Your task to perform on an android device: turn off wifi Image 0: 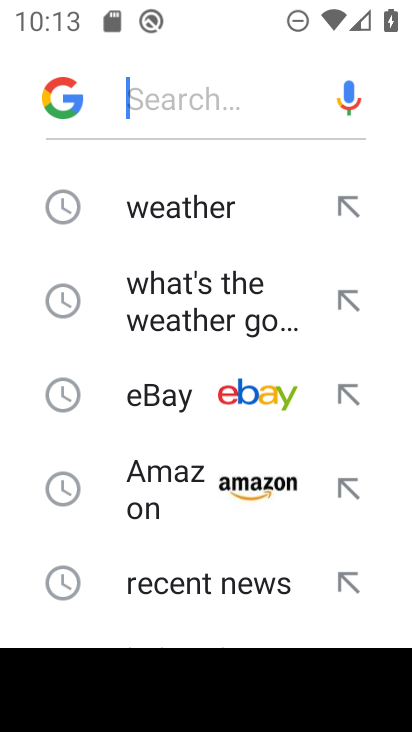
Step 0: press back button
Your task to perform on an android device: turn off wifi Image 1: 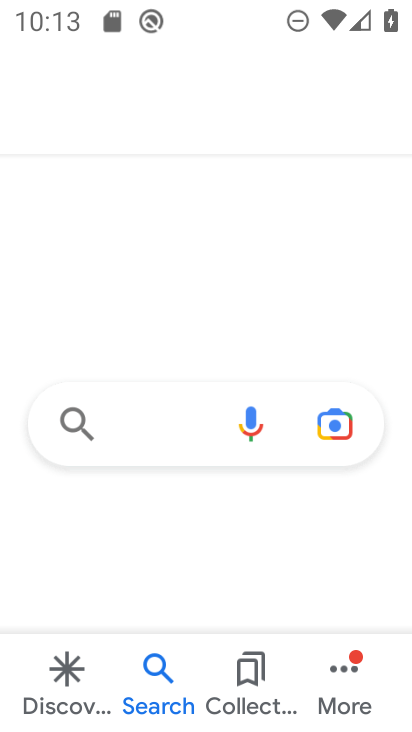
Step 1: press back button
Your task to perform on an android device: turn off wifi Image 2: 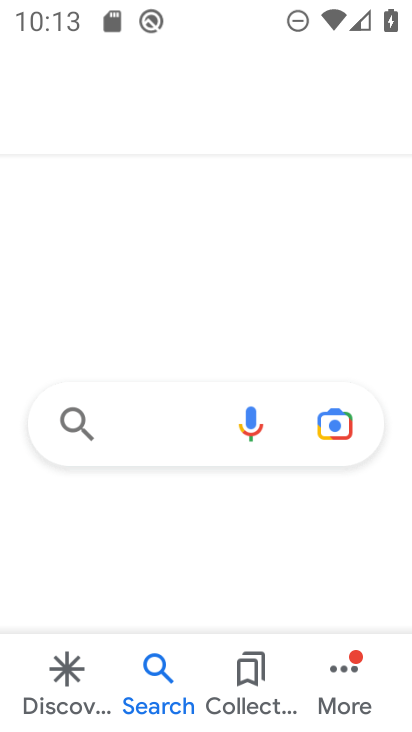
Step 2: press back button
Your task to perform on an android device: turn off wifi Image 3: 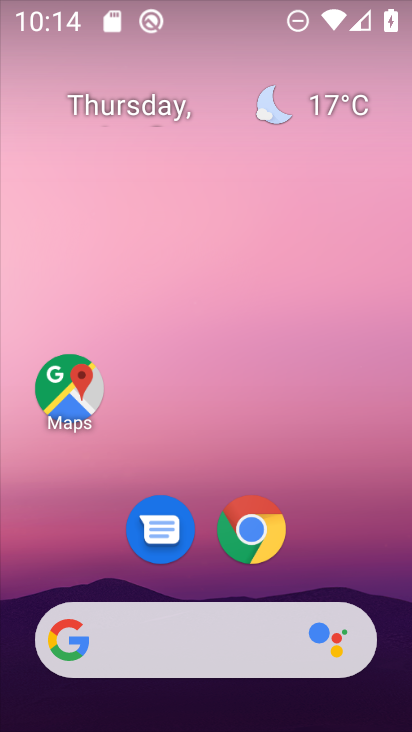
Step 3: drag from (403, 218) to (395, 182)
Your task to perform on an android device: turn off wifi Image 4: 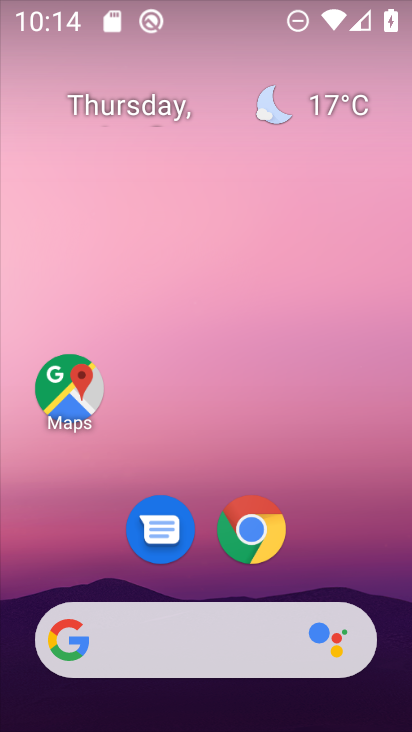
Step 4: drag from (390, 689) to (370, 60)
Your task to perform on an android device: turn off wifi Image 5: 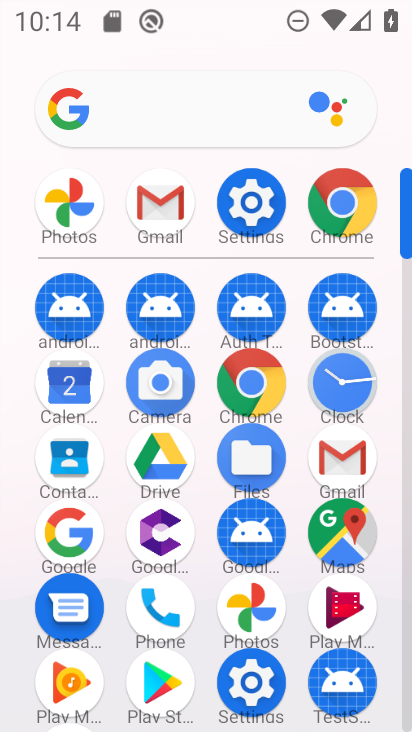
Step 5: click (243, 200)
Your task to perform on an android device: turn off wifi Image 6: 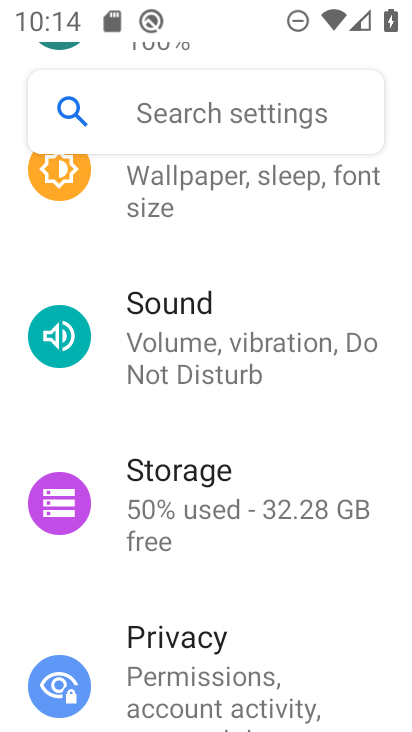
Step 6: drag from (252, 186) to (292, 711)
Your task to perform on an android device: turn off wifi Image 7: 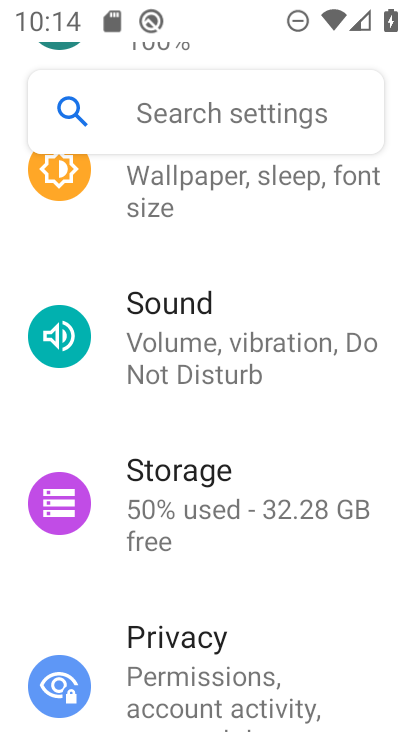
Step 7: drag from (269, 214) to (249, 587)
Your task to perform on an android device: turn off wifi Image 8: 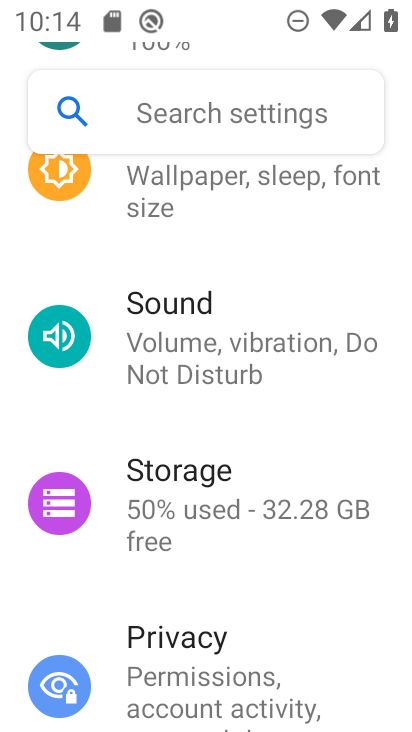
Step 8: drag from (125, 185) to (129, 628)
Your task to perform on an android device: turn off wifi Image 9: 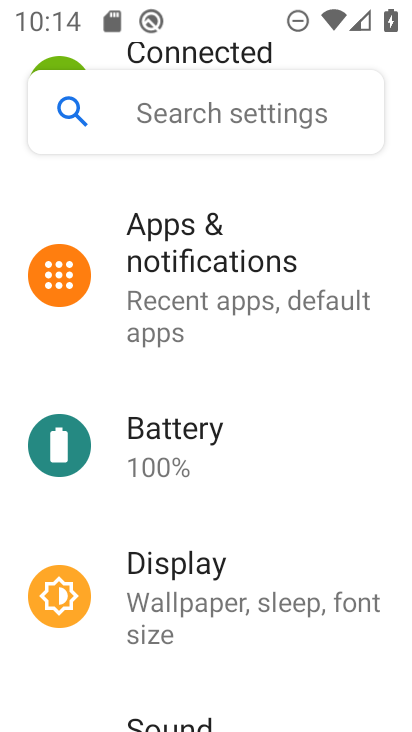
Step 9: drag from (247, 165) to (268, 564)
Your task to perform on an android device: turn off wifi Image 10: 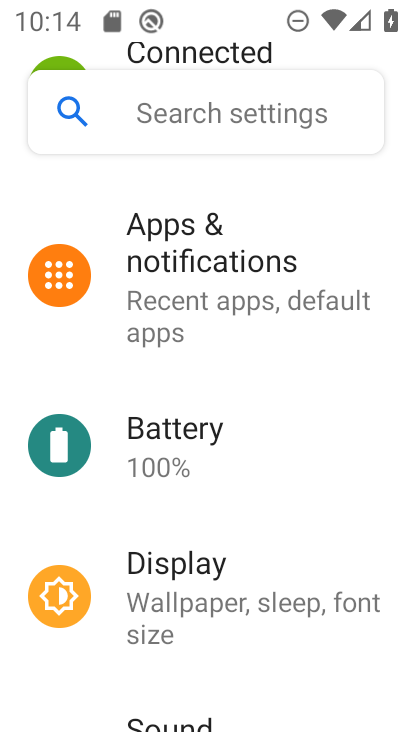
Step 10: drag from (386, 179) to (377, 697)
Your task to perform on an android device: turn off wifi Image 11: 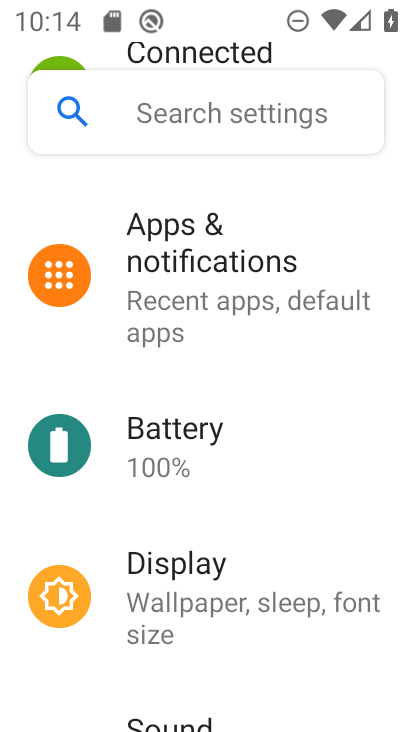
Step 11: drag from (333, 228) to (328, 578)
Your task to perform on an android device: turn off wifi Image 12: 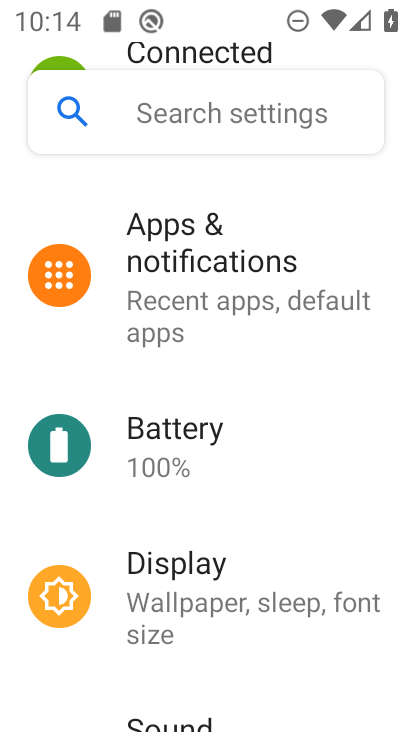
Step 12: drag from (268, 200) to (274, 616)
Your task to perform on an android device: turn off wifi Image 13: 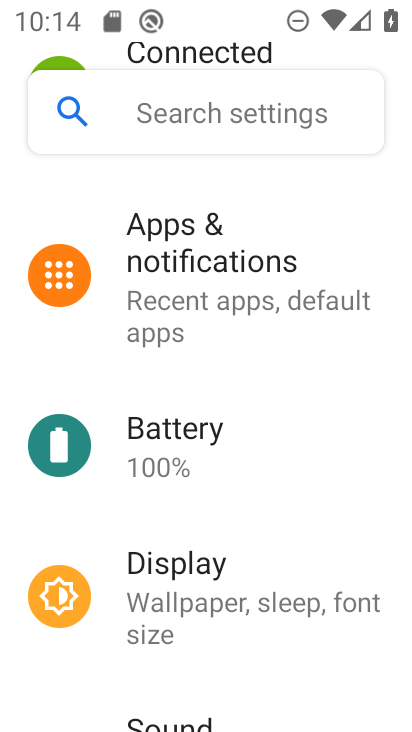
Step 13: drag from (243, 193) to (298, 508)
Your task to perform on an android device: turn off wifi Image 14: 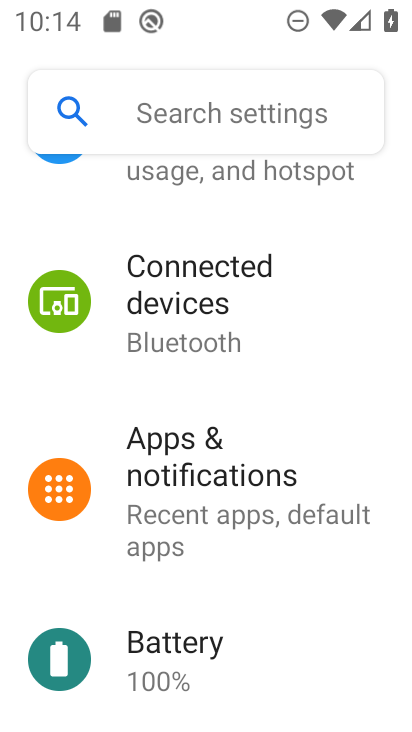
Step 14: click (224, 172)
Your task to perform on an android device: turn off wifi Image 15: 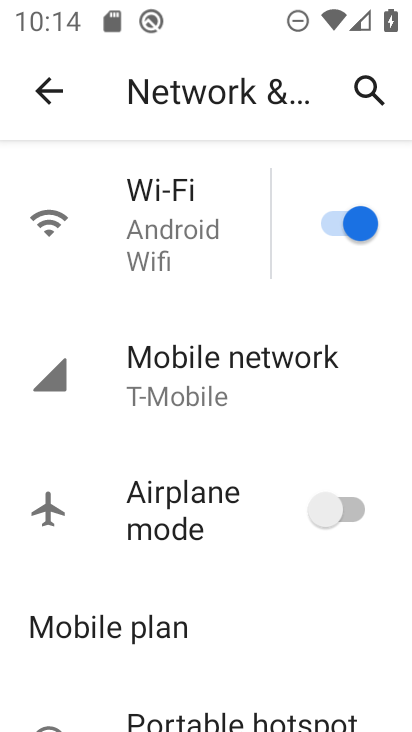
Step 15: click (325, 220)
Your task to perform on an android device: turn off wifi Image 16: 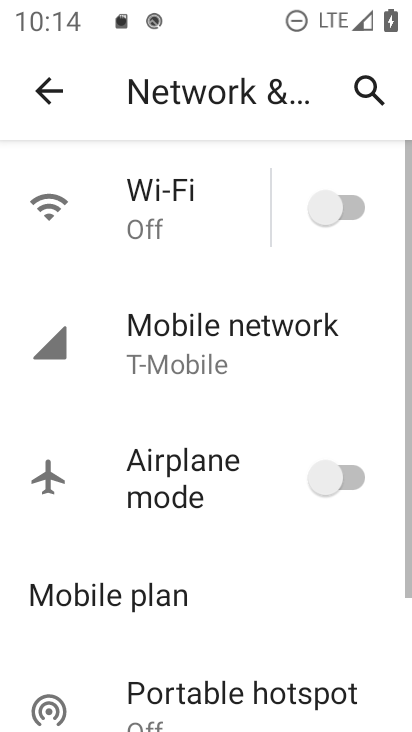
Step 16: task complete